Your task to perform on an android device: move a message to another label in the gmail app Image 0: 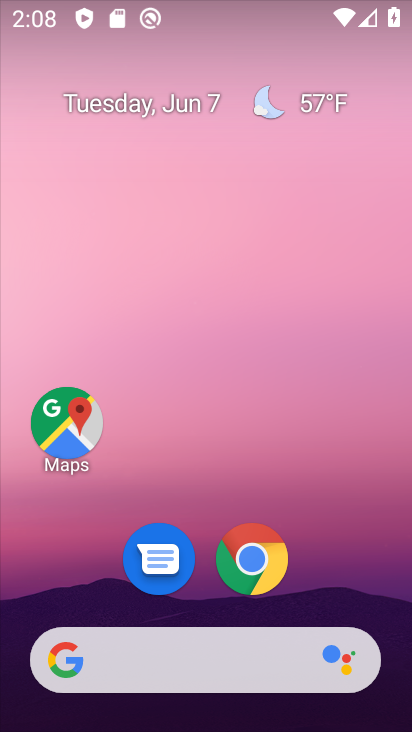
Step 0: click (248, 48)
Your task to perform on an android device: move a message to another label in the gmail app Image 1: 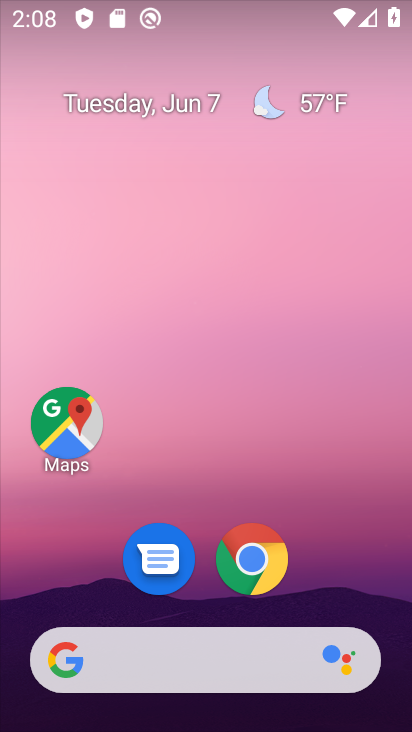
Step 1: drag from (292, 476) to (213, 33)
Your task to perform on an android device: move a message to another label in the gmail app Image 2: 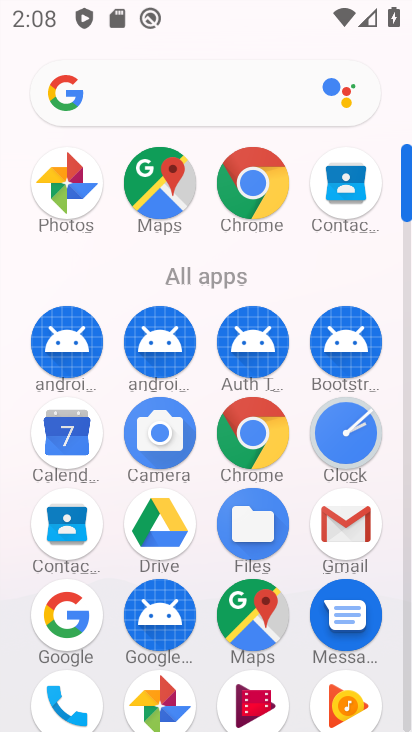
Step 2: drag from (3, 553) to (0, 284)
Your task to perform on an android device: move a message to another label in the gmail app Image 3: 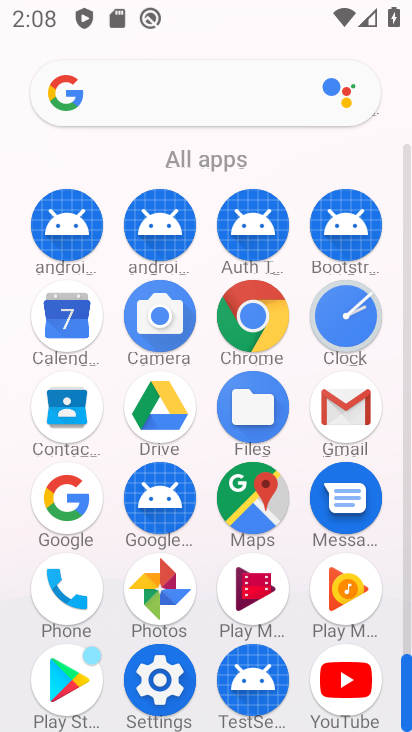
Step 3: drag from (9, 590) to (20, 301)
Your task to perform on an android device: move a message to another label in the gmail app Image 4: 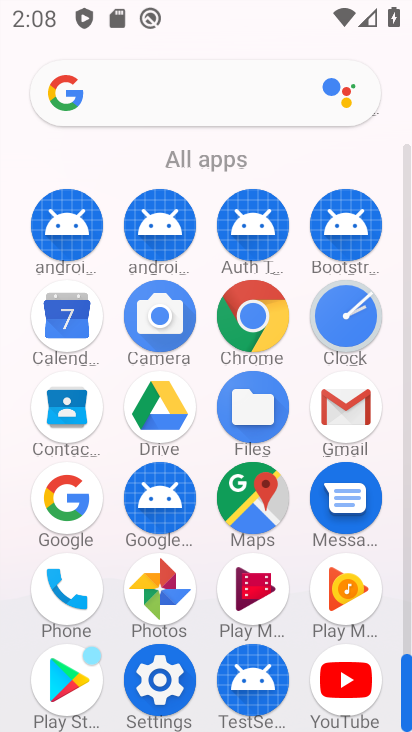
Step 4: drag from (2, 604) to (7, 294)
Your task to perform on an android device: move a message to another label in the gmail app Image 5: 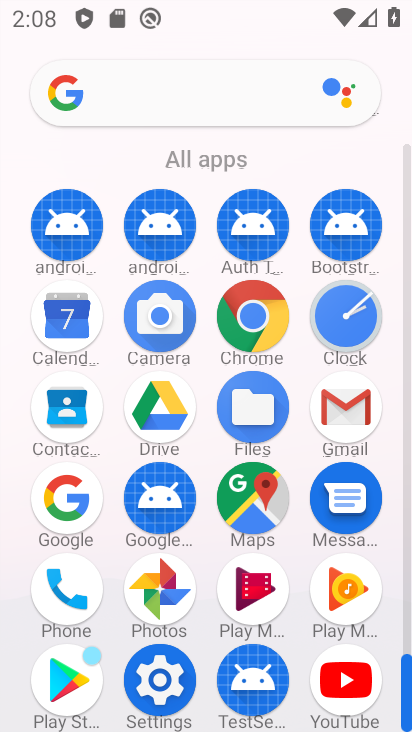
Step 5: click (342, 397)
Your task to perform on an android device: move a message to another label in the gmail app Image 6: 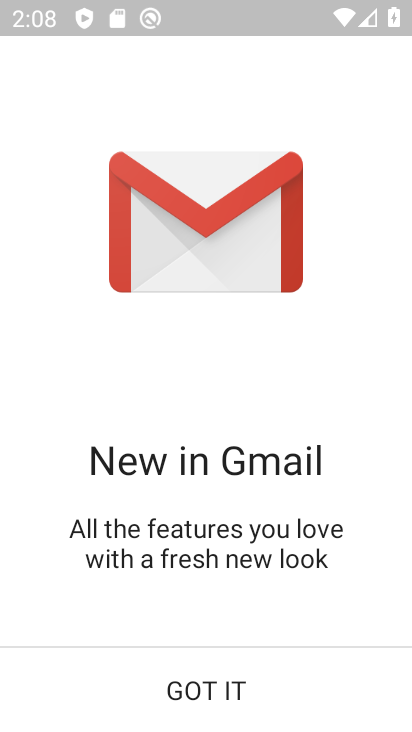
Step 6: click (205, 673)
Your task to perform on an android device: move a message to another label in the gmail app Image 7: 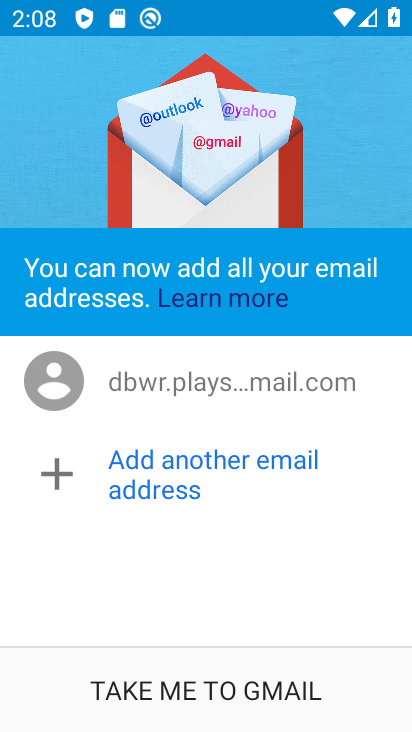
Step 7: click (205, 673)
Your task to perform on an android device: move a message to another label in the gmail app Image 8: 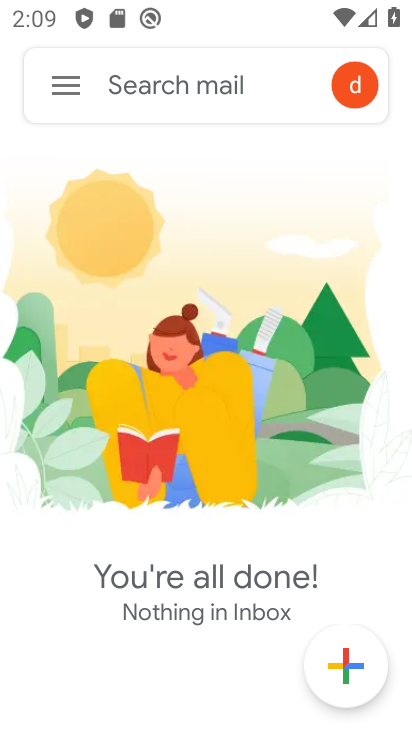
Step 8: click (66, 82)
Your task to perform on an android device: move a message to another label in the gmail app Image 9: 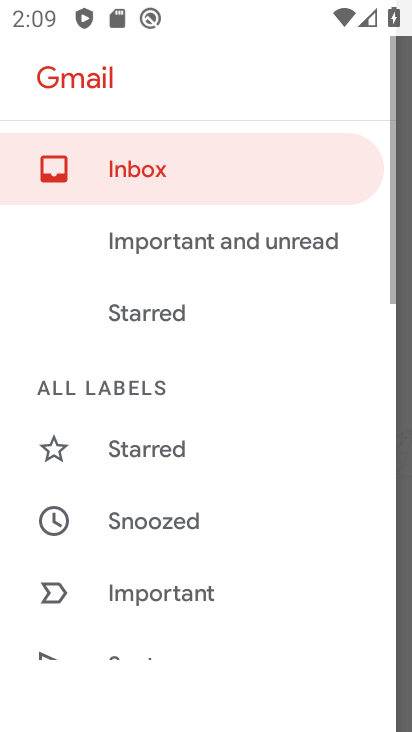
Step 9: drag from (184, 604) to (220, 192)
Your task to perform on an android device: move a message to another label in the gmail app Image 10: 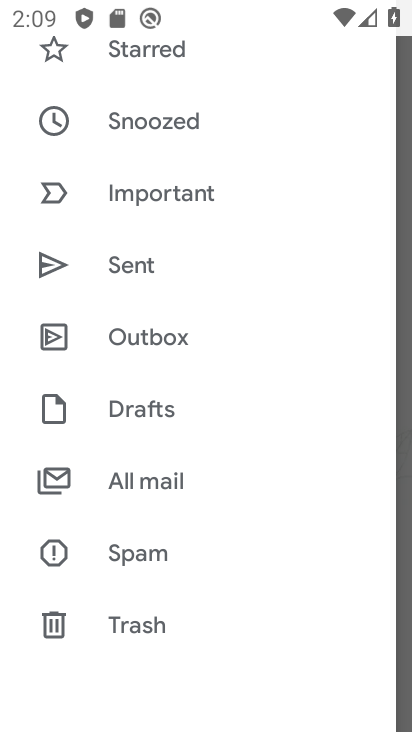
Step 10: click (138, 485)
Your task to perform on an android device: move a message to another label in the gmail app Image 11: 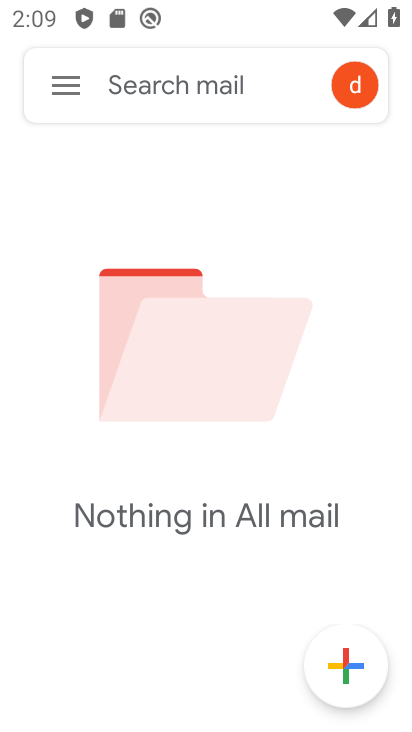
Step 11: task complete